Your task to perform on an android device: turn pop-ups on in chrome Image 0: 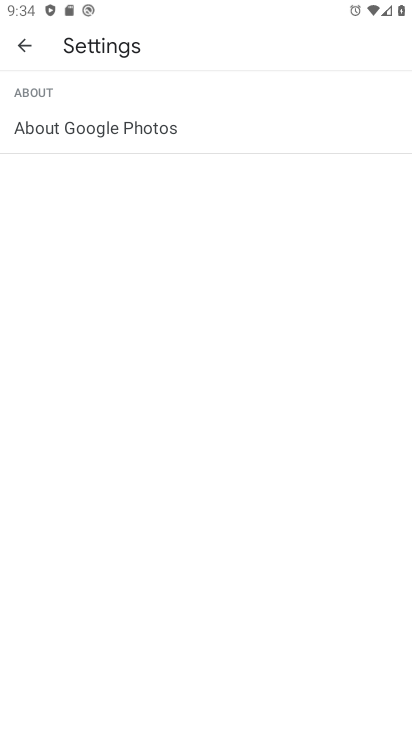
Step 0: press home button
Your task to perform on an android device: turn pop-ups on in chrome Image 1: 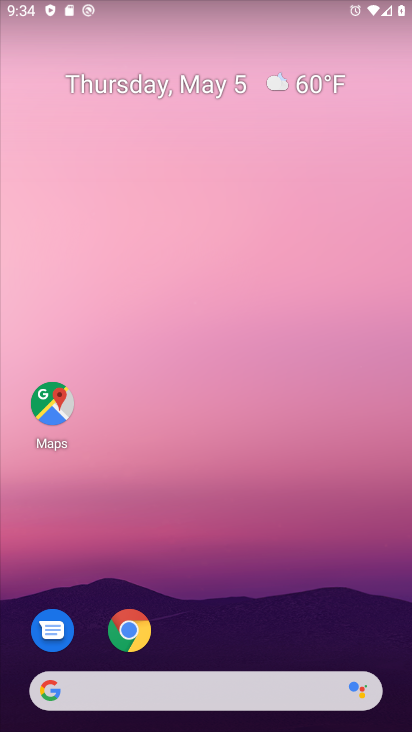
Step 1: click (134, 646)
Your task to perform on an android device: turn pop-ups on in chrome Image 2: 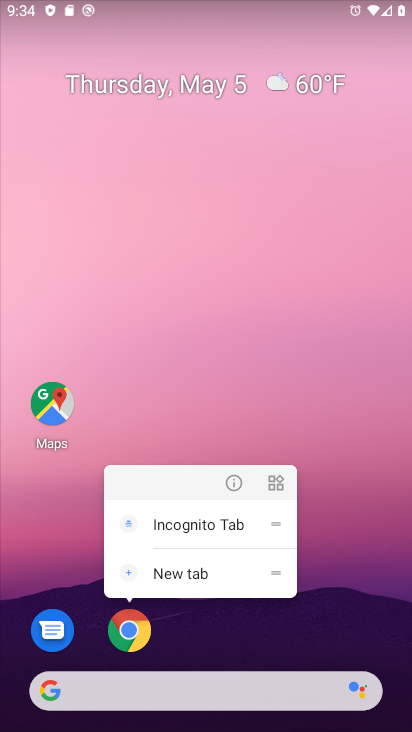
Step 2: click (132, 628)
Your task to perform on an android device: turn pop-ups on in chrome Image 3: 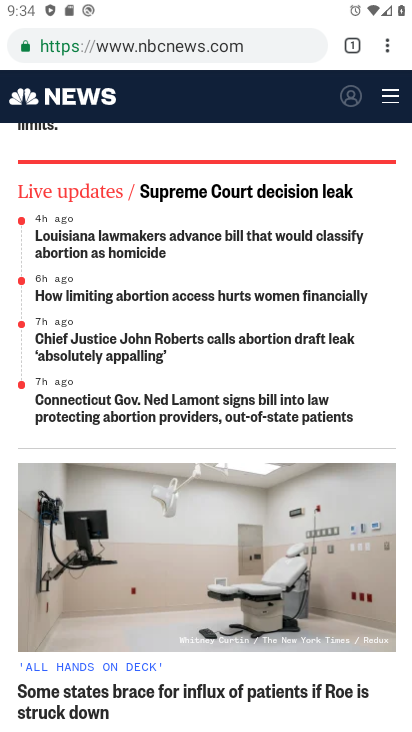
Step 3: drag from (390, 45) to (268, 560)
Your task to perform on an android device: turn pop-ups on in chrome Image 4: 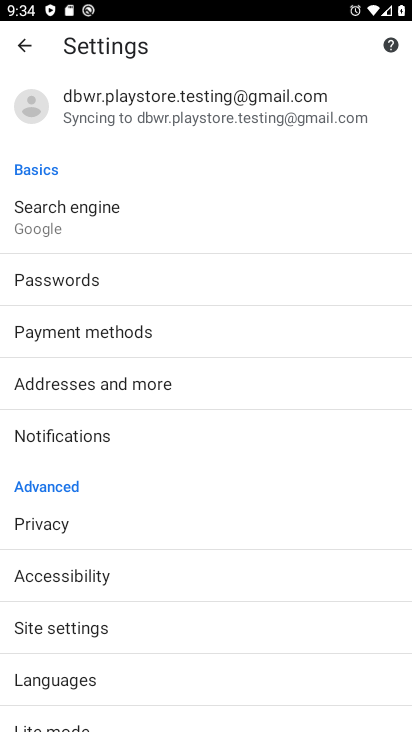
Step 4: click (104, 634)
Your task to perform on an android device: turn pop-ups on in chrome Image 5: 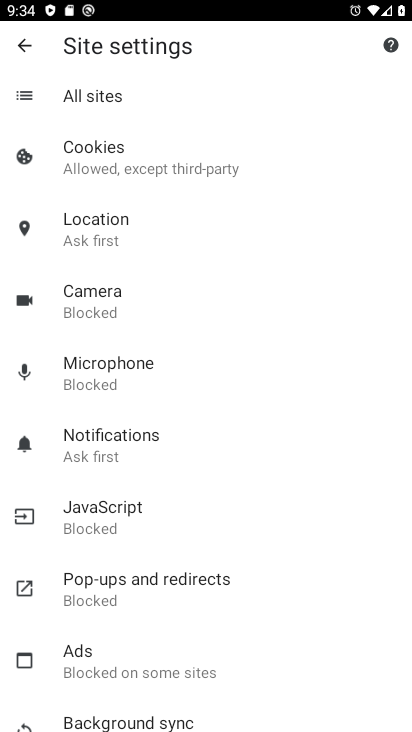
Step 5: click (167, 597)
Your task to perform on an android device: turn pop-ups on in chrome Image 6: 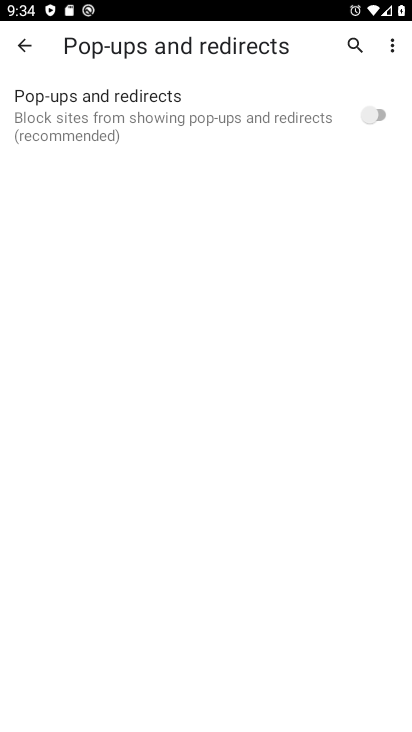
Step 6: click (376, 118)
Your task to perform on an android device: turn pop-ups on in chrome Image 7: 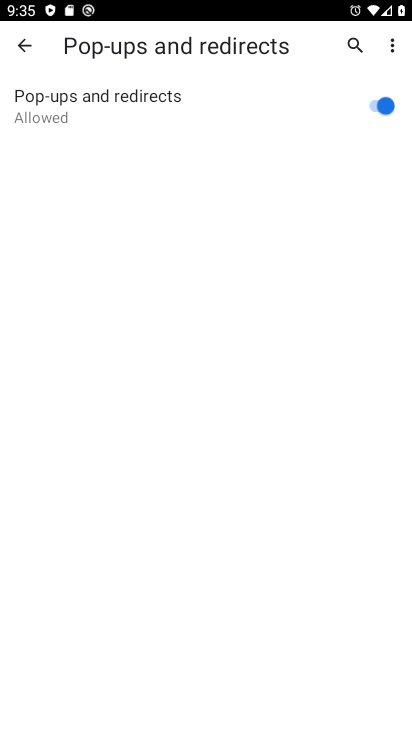
Step 7: task complete